Your task to perform on an android device: Search for hotels in Tokyo Image 0: 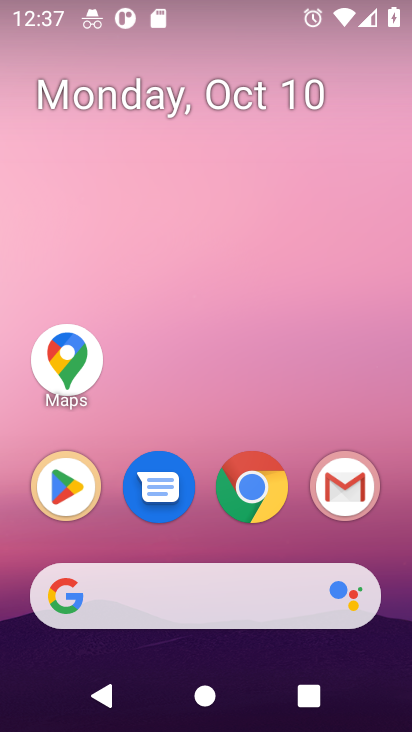
Step 0: click (259, 489)
Your task to perform on an android device: Search for hotels in Tokyo Image 1: 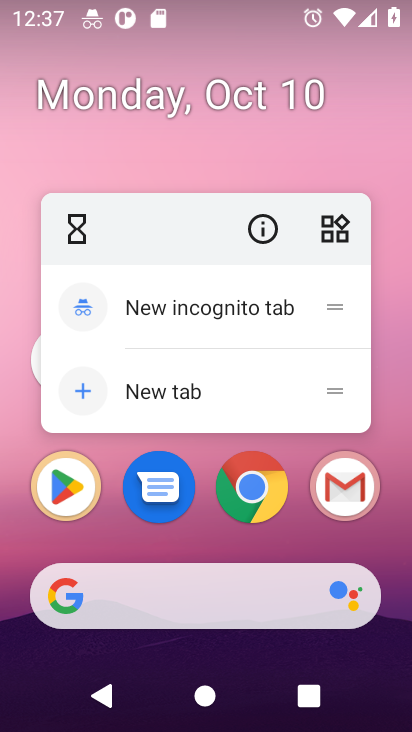
Step 1: click (237, 522)
Your task to perform on an android device: Search for hotels in Tokyo Image 2: 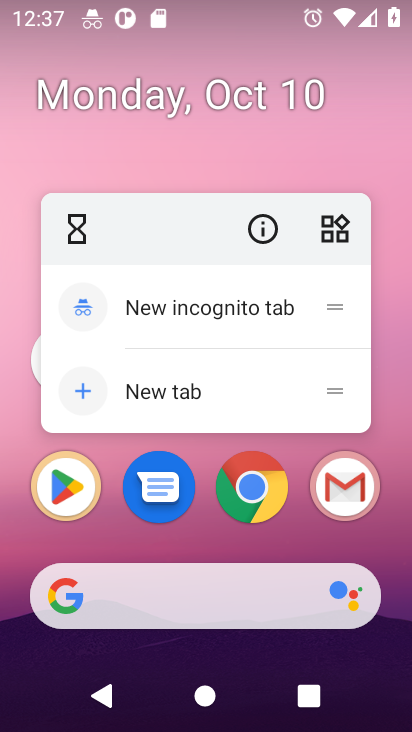
Step 2: click (233, 504)
Your task to perform on an android device: Search for hotels in Tokyo Image 3: 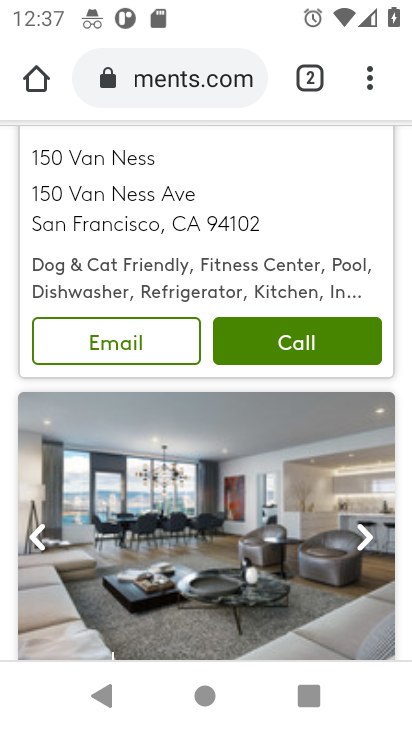
Step 3: click (192, 86)
Your task to perform on an android device: Search for hotels in Tokyo Image 4: 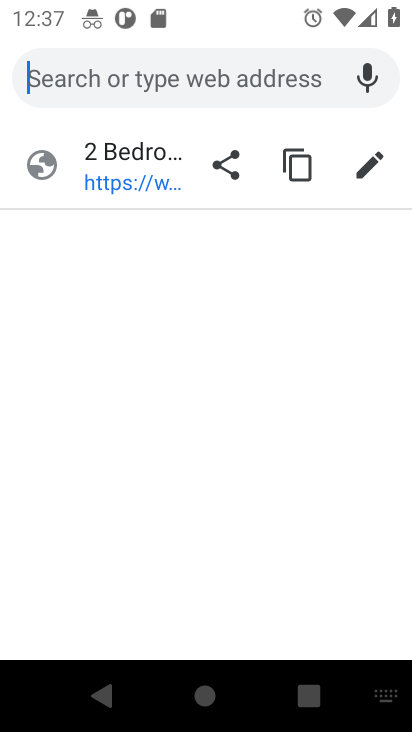
Step 4: type "hotels in tokyo"
Your task to perform on an android device: Search for hotels in Tokyo Image 5: 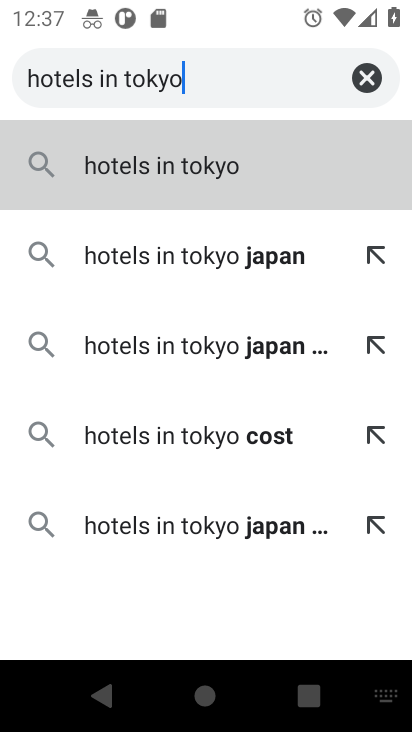
Step 5: press enter
Your task to perform on an android device: Search for hotels in Tokyo Image 6: 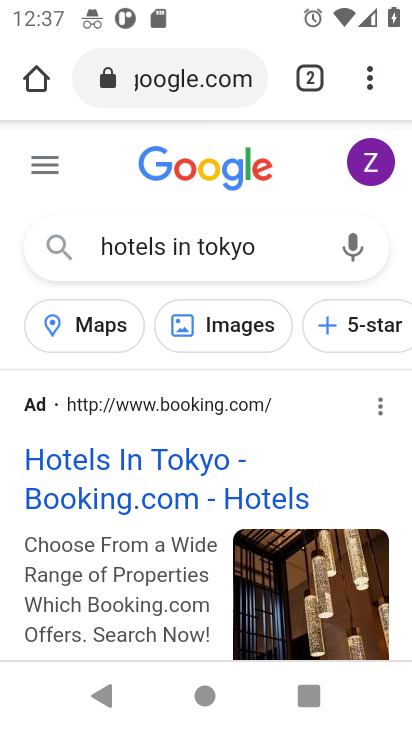
Step 6: click (100, 495)
Your task to perform on an android device: Search for hotels in Tokyo Image 7: 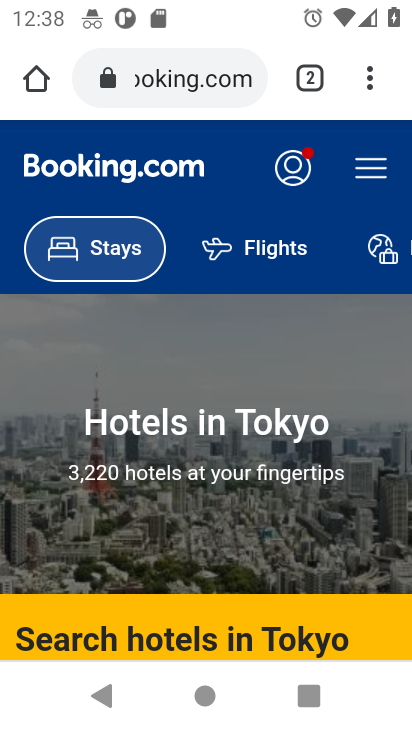
Step 7: drag from (246, 544) to (224, 241)
Your task to perform on an android device: Search for hotels in Tokyo Image 8: 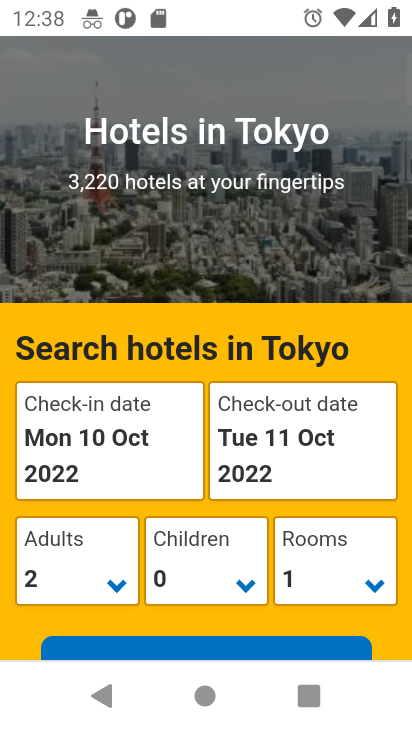
Step 8: drag from (267, 499) to (239, 204)
Your task to perform on an android device: Search for hotels in Tokyo Image 9: 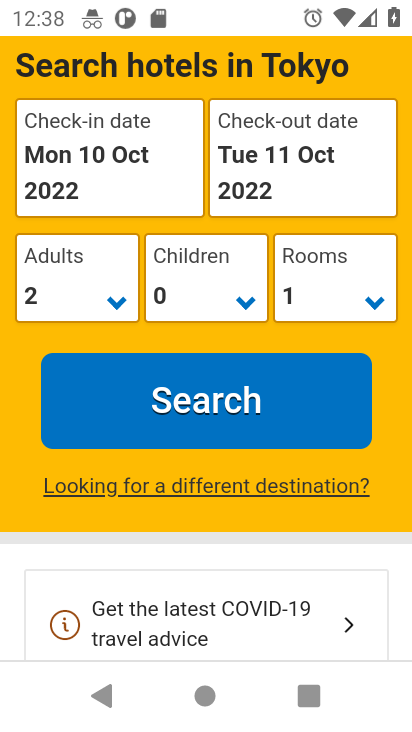
Step 9: drag from (219, 508) to (194, 166)
Your task to perform on an android device: Search for hotels in Tokyo Image 10: 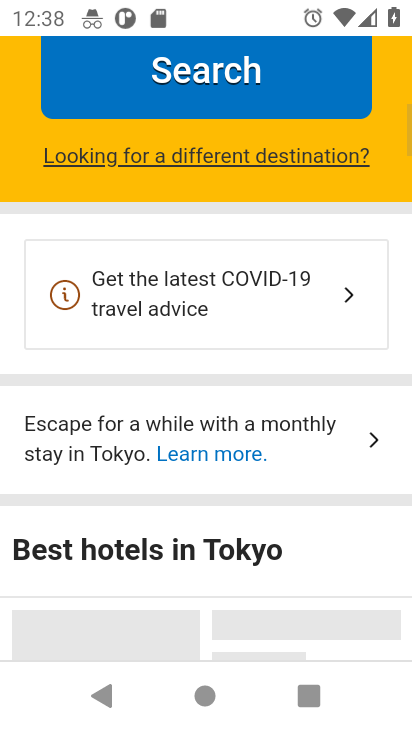
Step 10: drag from (225, 546) to (201, 183)
Your task to perform on an android device: Search for hotels in Tokyo Image 11: 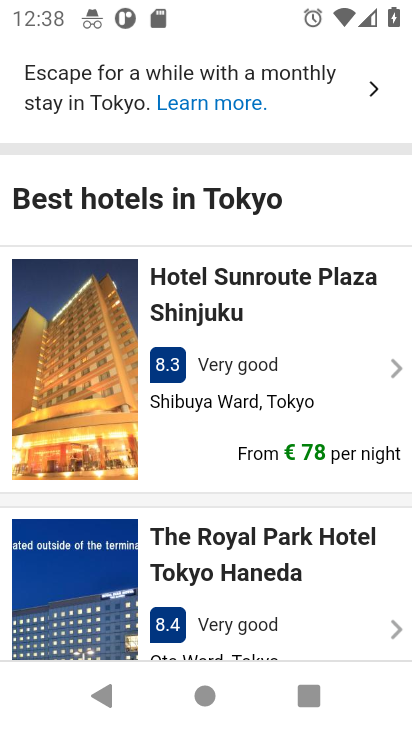
Step 11: drag from (240, 571) to (259, 423)
Your task to perform on an android device: Search for hotels in Tokyo Image 12: 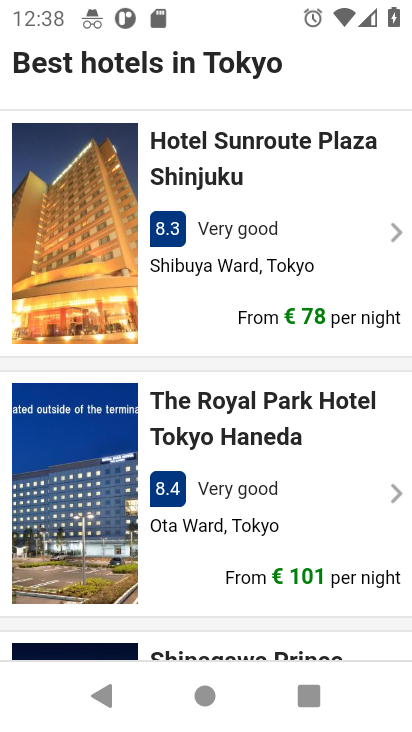
Step 12: drag from (155, 521) to (185, 91)
Your task to perform on an android device: Search for hotels in Tokyo Image 13: 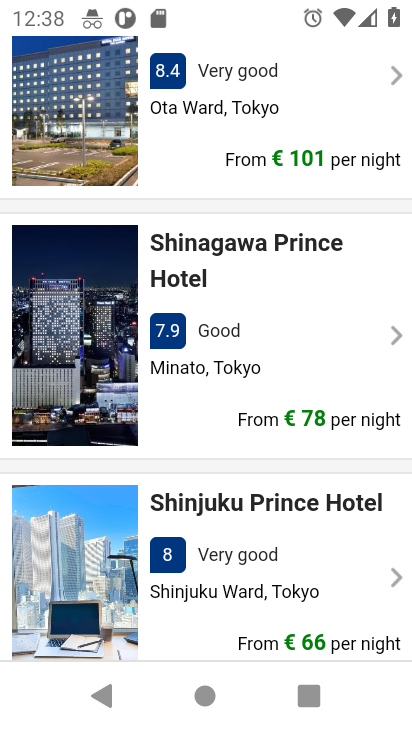
Step 13: drag from (236, 404) to (241, 233)
Your task to perform on an android device: Search for hotels in Tokyo Image 14: 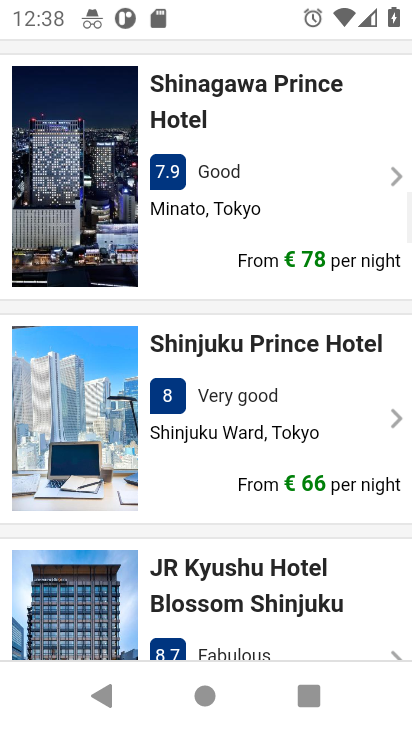
Step 14: drag from (247, 547) to (244, 330)
Your task to perform on an android device: Search for hotels in Tokyo Image 15: 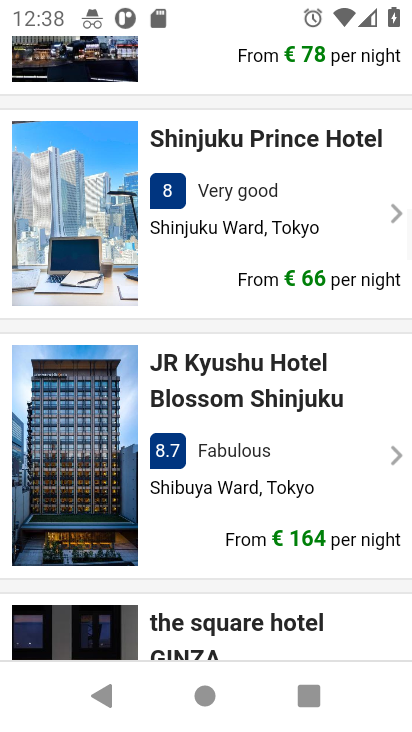
Step 15: drag from (273, 585) to (275, 330)
Your task to perform on an android device: Search for hotels in Tokyo Image 16: 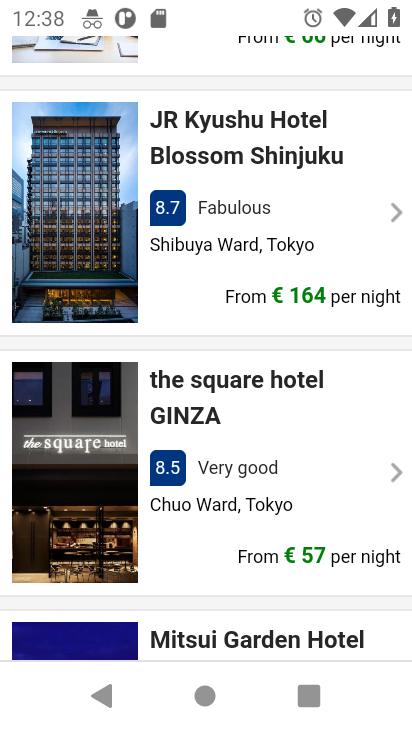
Step 16: drag from (113, 606) to (139, 249)
Your task to perform on an android device: Search for hotels in Tokyo Image 17: 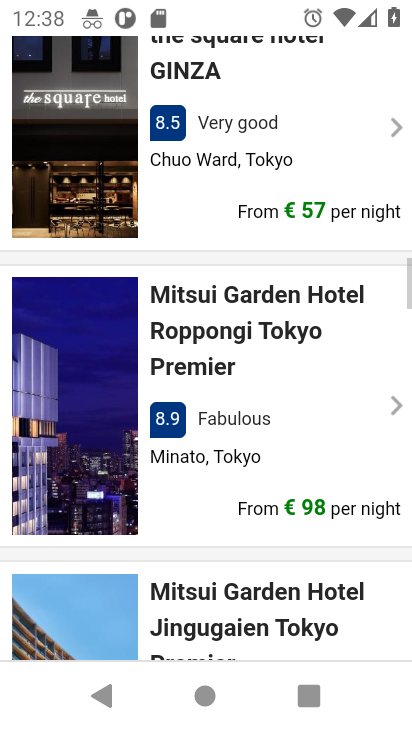
Step 17: drag from (265, 542) to (266, 295)
Your task to perform on an android device: Search for hotels in Tokyo Image 18: 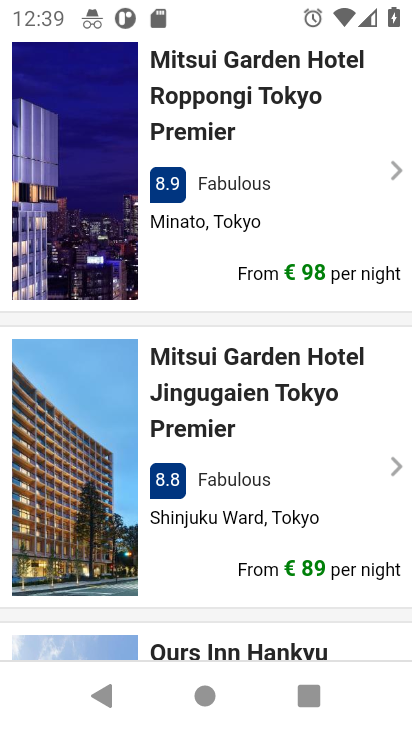
Step 18: drag from (237, 501) to (252, 163)
Your task to perform on an android device: Search for hotels in Tokyo Image 19: 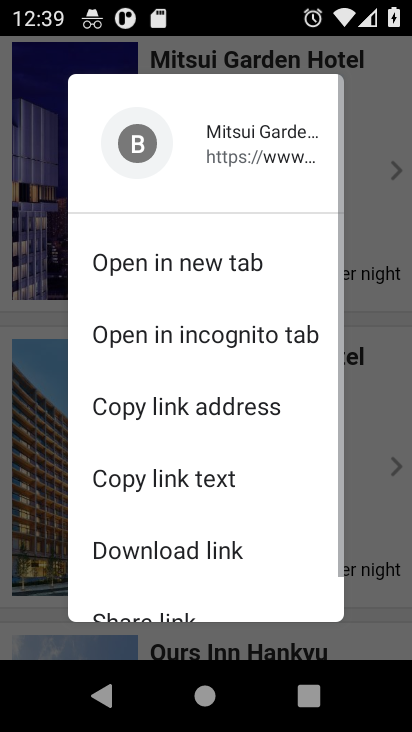
Step 19: drag from (268, 397) to (265, 116)
Your task to perform on an android device: Search for hotels in Tokyo Image 20: 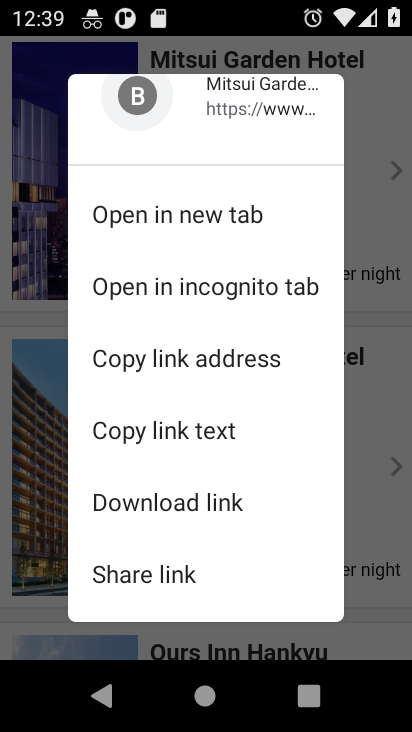
Step 20: click (346, 351)
Your task to perform on an android device: Search for hotels in Tokyo Image 21: 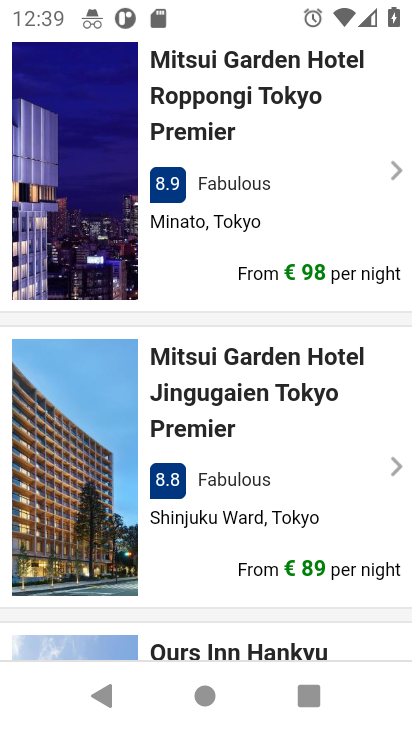
Step 21: click (371, 569)
Your task to perform on an android device: Search for hotels in Tokyo Image 22: 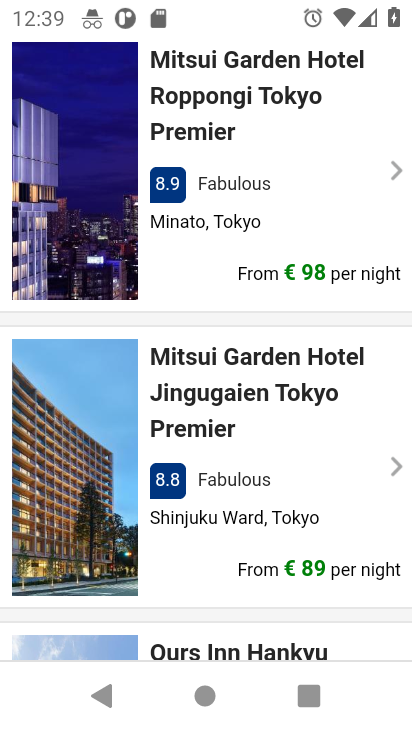
Step 22: task complete